Your task to perform on an android device: Is it going to rain tomorrow? Image 0: 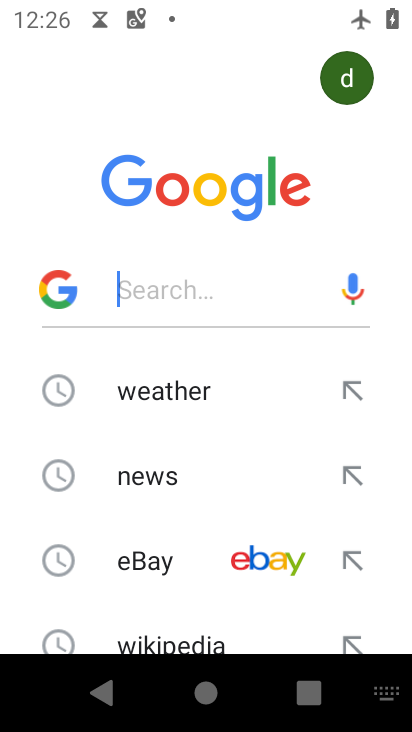
Step 0: click (187, 387)
Your task to perform on an android device: Is it going to rain tomorrow? Image 1: 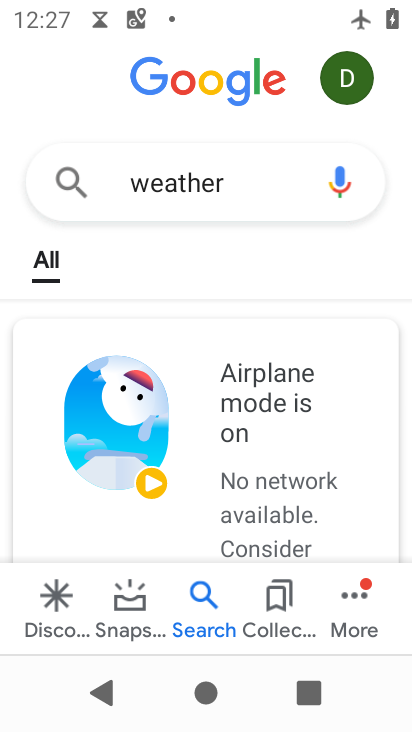
Step 1: drag from (245, 414) to (245, 267)
Your task to perform on an android device: Is it going to rain tomorrow? Image 2: 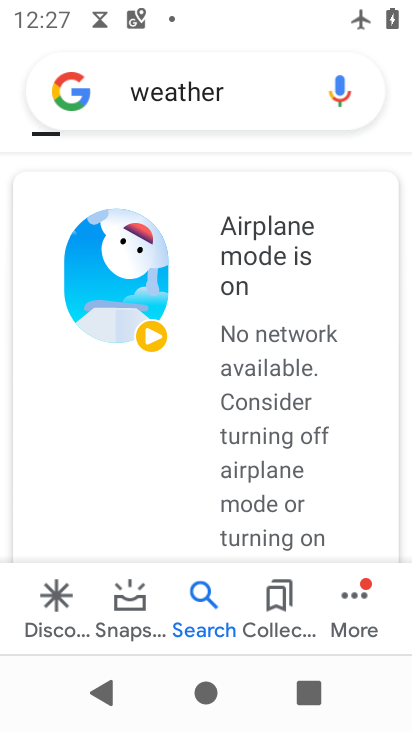
Step 2: drag from (221, 403) to (232, 337)
Your task to perform on an android device: Is it going to rain tomorrow? Image 3: 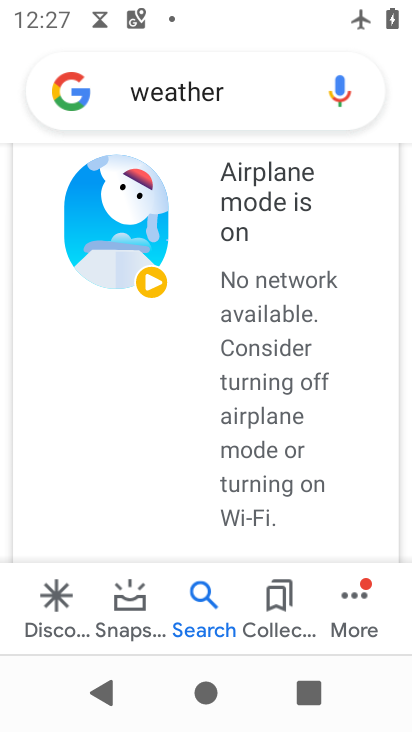
Step 3: drag from (255, 216) to (267, 614)
Your task to perform on an android device: Is it going to rain tomorrow? Image 4: 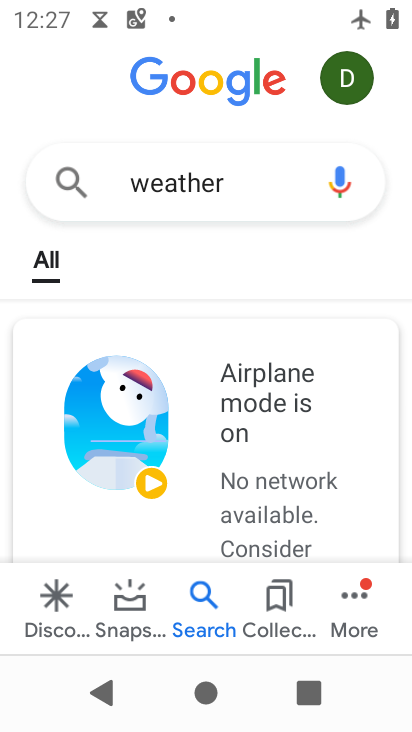
Step 4: drag from (210, 423) to (221, 507)
Your task to perform on an android device: Is it going to rain tomorrow? Image 5: 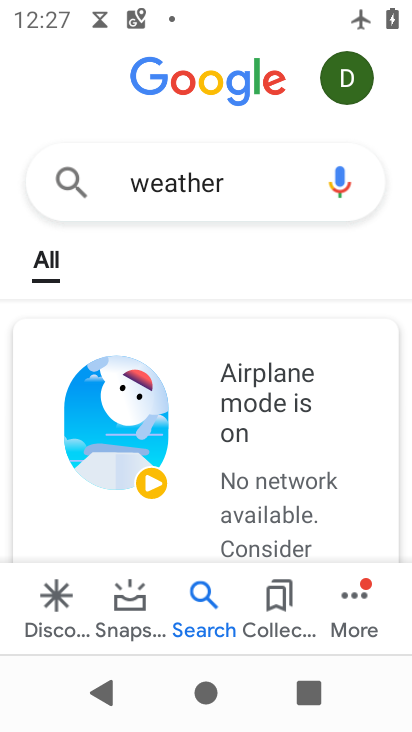
Step 5: click (258, 173)
Your task to perform on an android device: Is it going to rain tomorrow? Image 6: 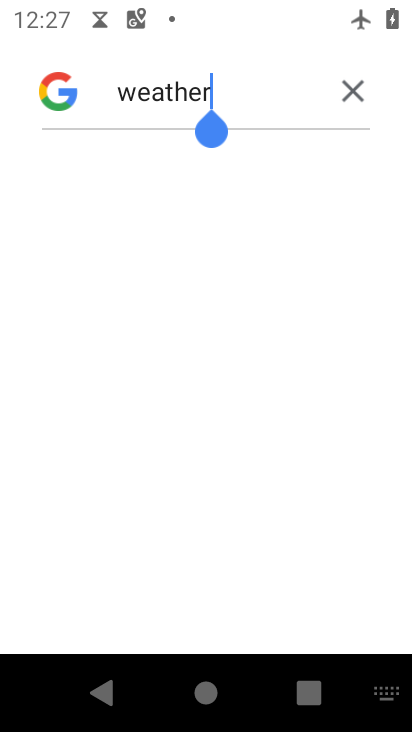
Step 6: click (354, 94)
Your task to perform on an android device: Is it going to rain tomorrow? Image 7: 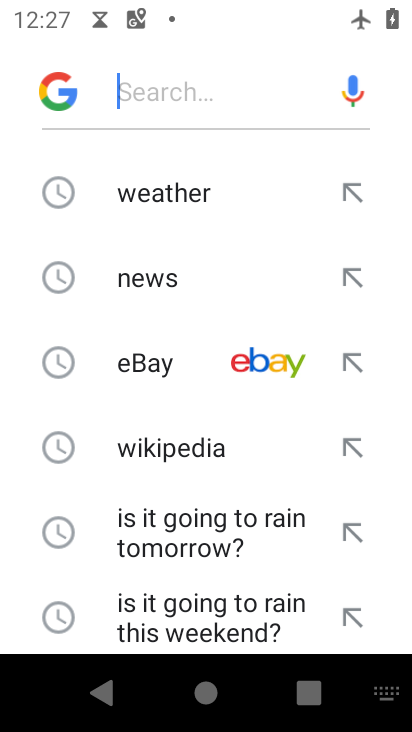
Step 7: click (260, 527)
Your task to perform on an android device: Is it going to rain tomorrow? Image 8: 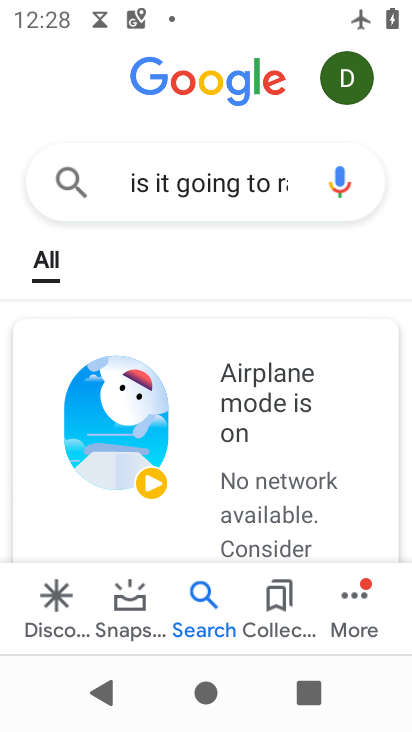
Step 8: task complete